Your task to perform on an android device: What's the weather today? Image 0: 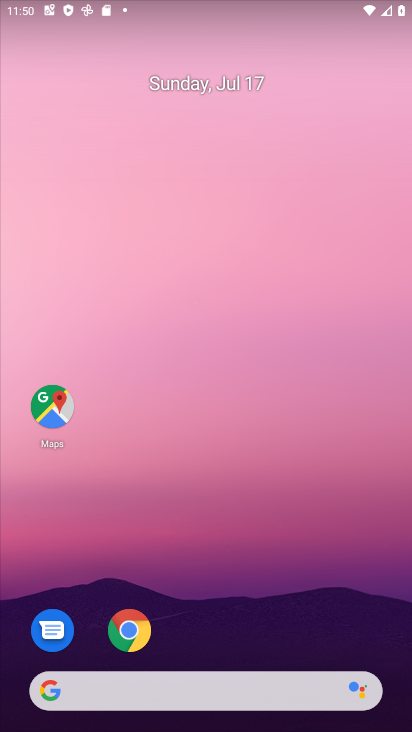
Step 0: click (164, 685)
Your task to perform on an android device: What's the weather today? Image 1: 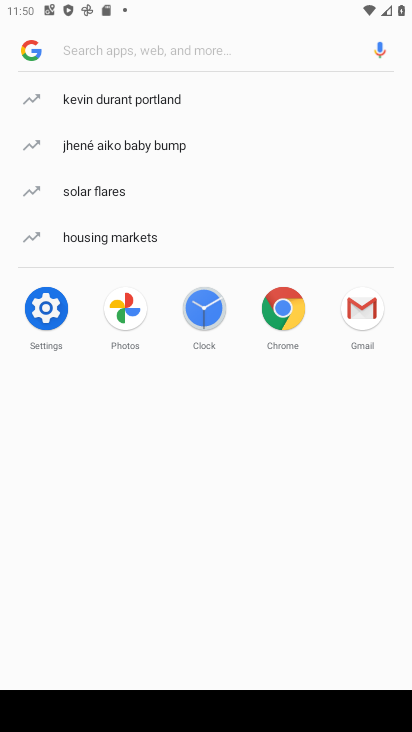
Step 1: type "weather"
Your task to perform on an android device: What's the weather today? Image 2: 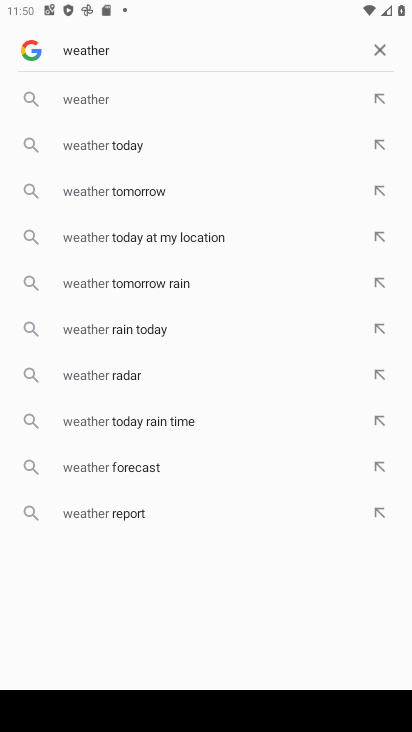
Step 2: click (134, 97)
Your task to perform on an android device: What's the weather today? Image 3: 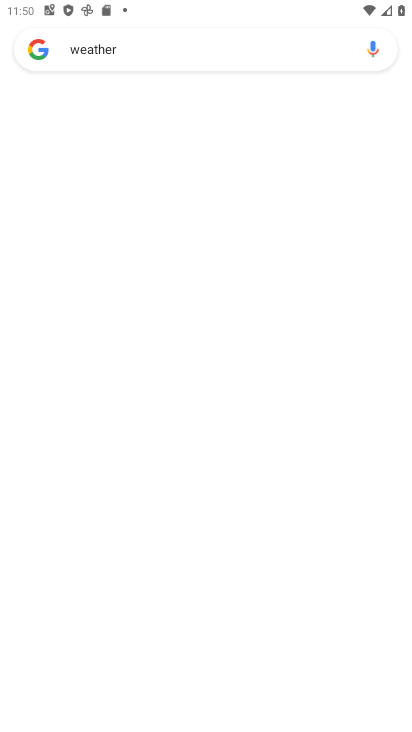
Step 3: task complete